Your task to perform on an android device: Open the web browser Image 0: 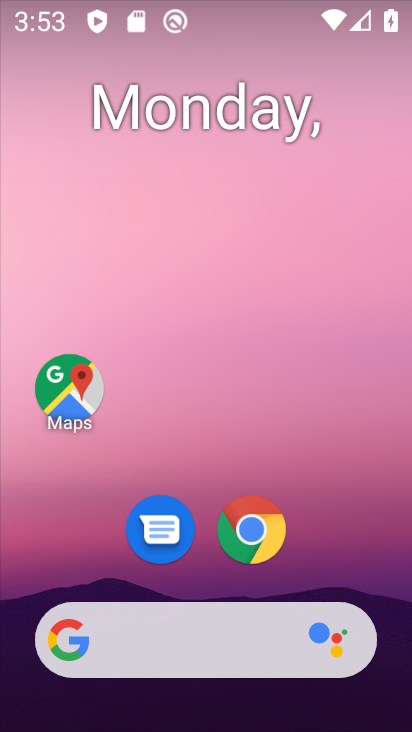
Step 0: drag from (222, 575) to (278, 28)
Your task to perform on an android device: Open the web browser Image 1: 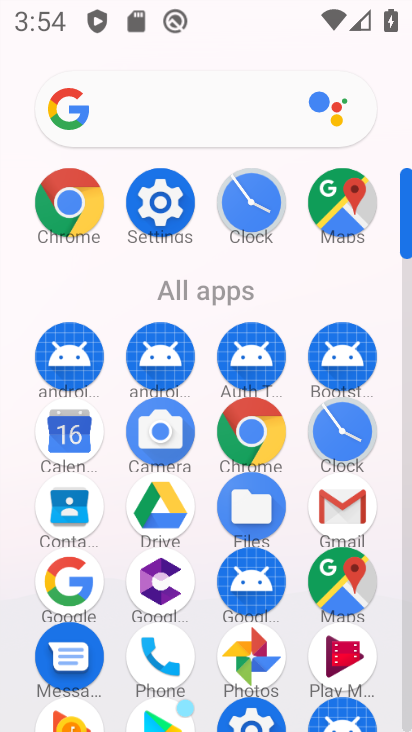
Step 1: click (244, 432)
Your task to perform on an android device: Open the web browser Image 2: 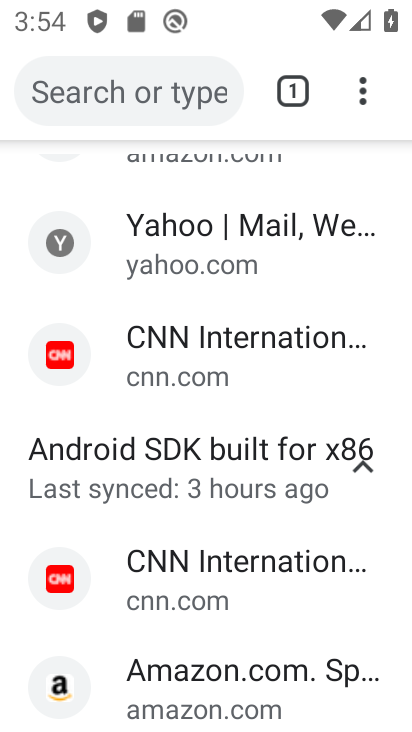
Step 2: task complete